Your task to perform on an android device: Go to wifi settings Image 0: 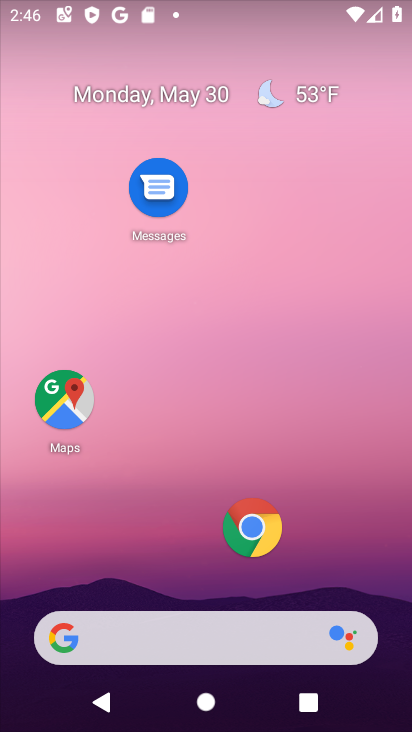
Step 0: drag from (197, 550) to (319, 118)
Your task to perform on an android device: Go to wifi settings Image 1: 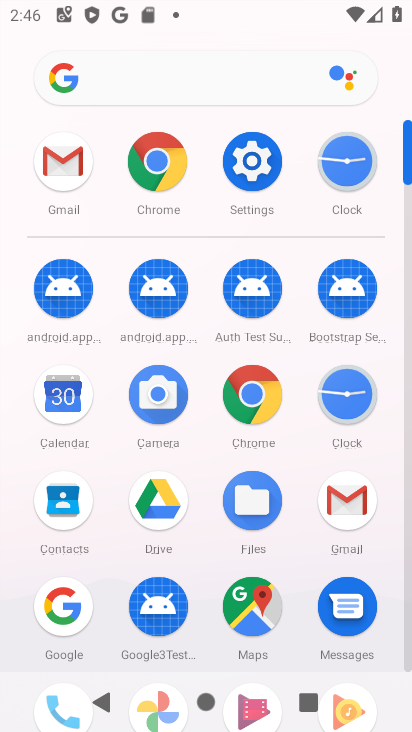
Step 1: drag from (209, 244) to (210, 0)
Your task to perform on an android device: Go to wifi settings Image 2: 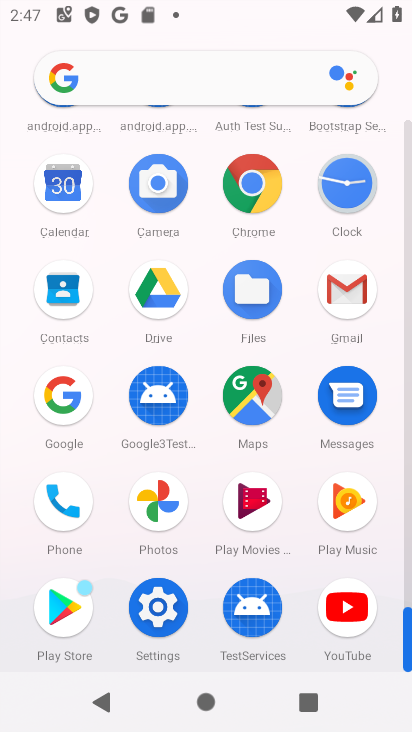
Step 2: click (171, 614)
Your task to perform on an android device: Go to wifi settings Image 3: 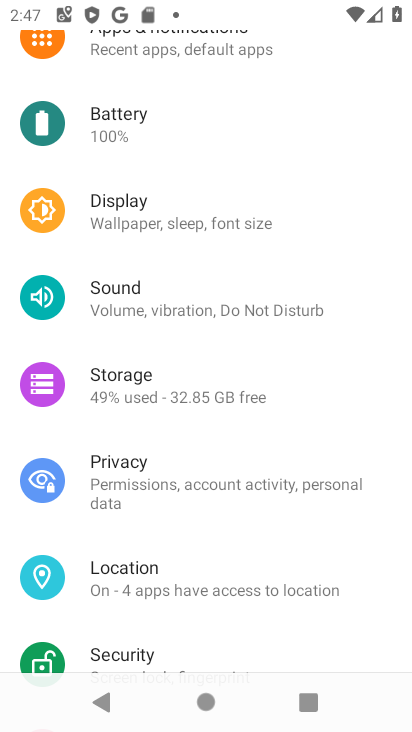
Step 3: drag from (179, 105) to (176, 610)
Your task to perform on an android device: Go to wifi settings Image 4: 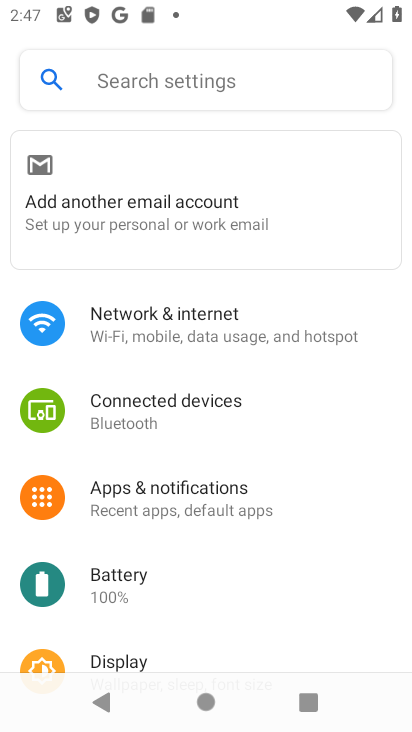
Step 4: click (179, 329)
Your task to perform on an android device: Go to wifi settings Image 5: 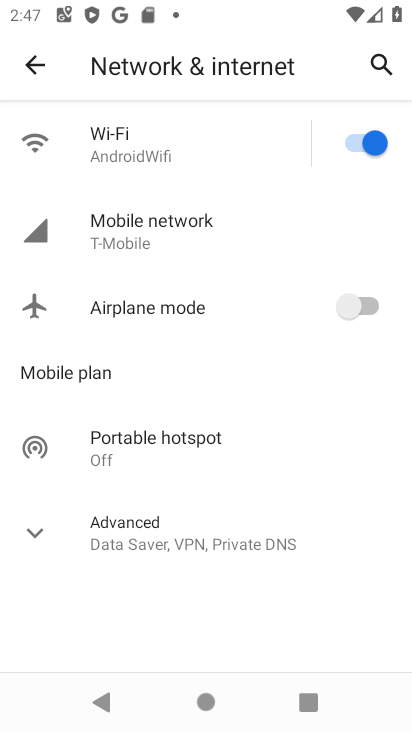
Step 5: click (149, 164)
Your task to perform on an android device: Go to wifi settings Image 6: 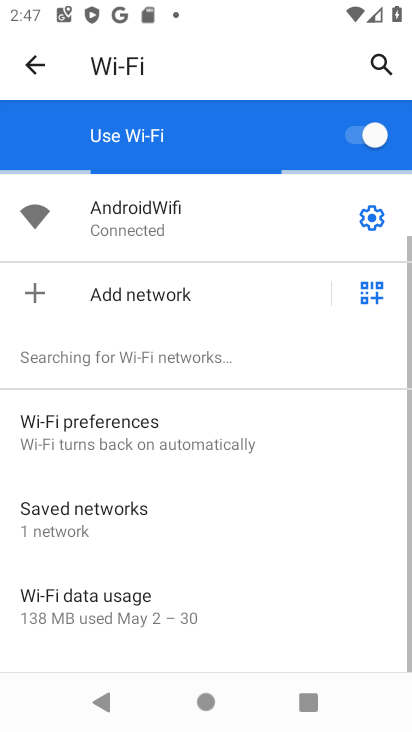
Step 6: task complete